Your task to perform on an android device: Open Google Maps and go to "Timeline" Image 0: 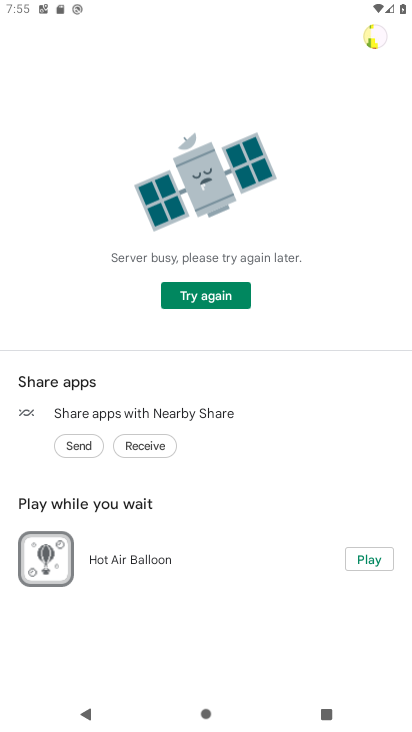
Step 0: press home button
Your task to perform on an android device: Open Google Maps and go to "Timeline" Image 1: 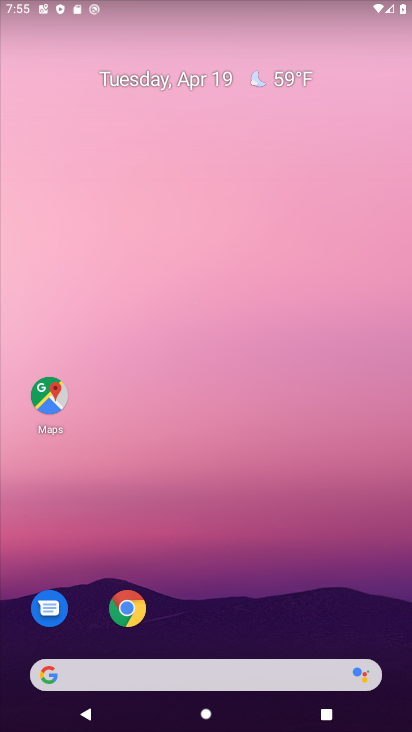
Step 1: drag from (287, 595) to (231, 165)
Your task to perform on an android device: Open Google Maps and go to "Timeline" Image 2: 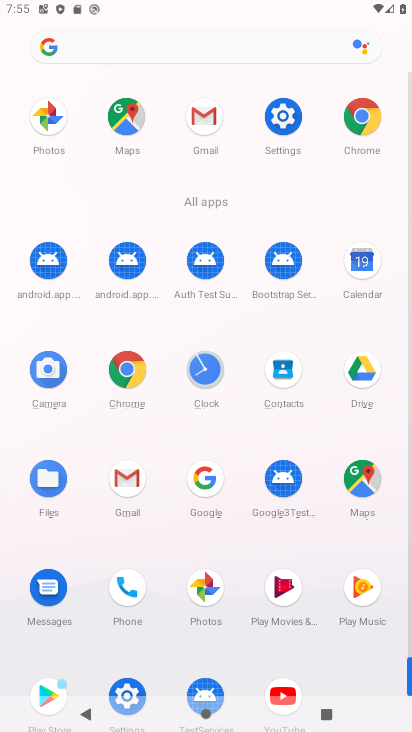
Step 2: click (123, 125)
Your task to perform on an android device: Open Google Maps and go to "Timeline" Image 3: 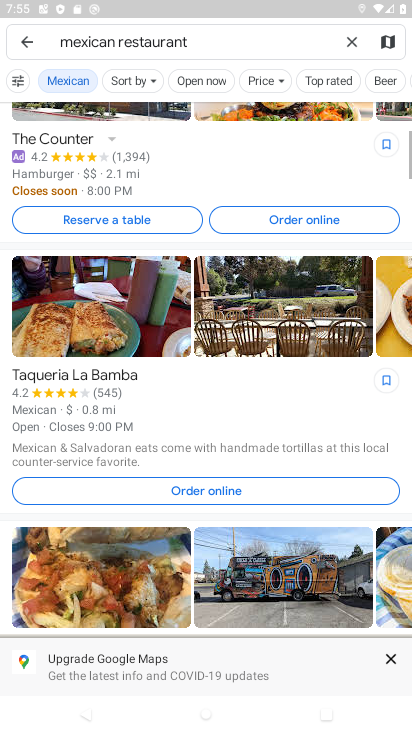
Step 3: click (29, 39)
Your task to perform on an android device: Open Google Maps and go to "Timeline" Image 4: 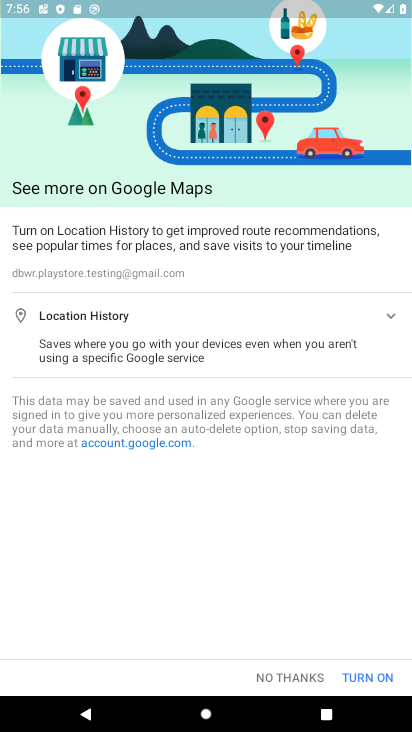
Step 4: click (288, 677)
Your task to perform on an android device: Open Google Maps and go to "Timeline" Image 5: 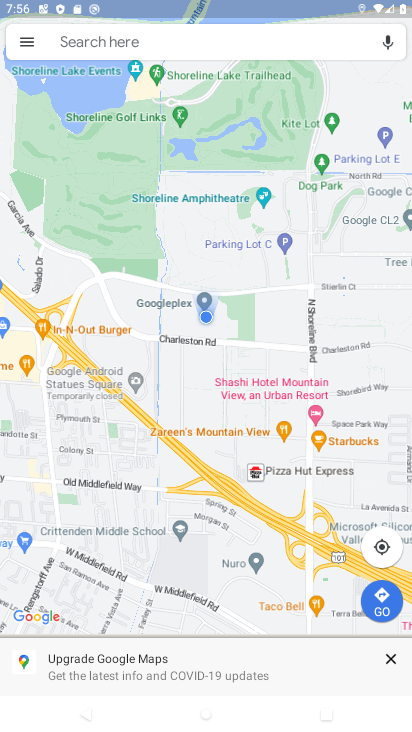
Step 5: click (18, 44)
Your task to perform on an android device: Open Google Maps and go to "Timeline" Image 6: 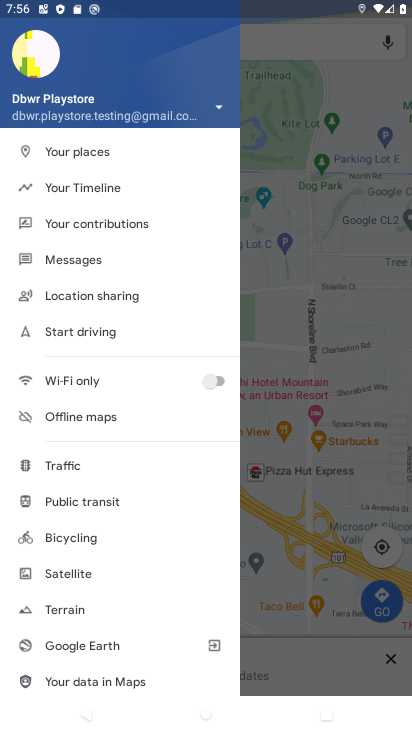
Step 6: click (101, 185)
Your task to perform on an android device: Open Google Maps and go to "Timeline" Image 7: 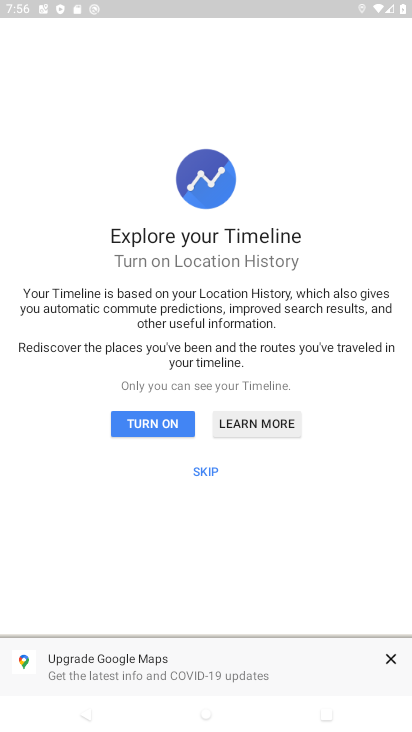
Step 7: click (203, 472)
Your task to perform on an android device: Open Google Maps and go to "Timeline" Image 8: 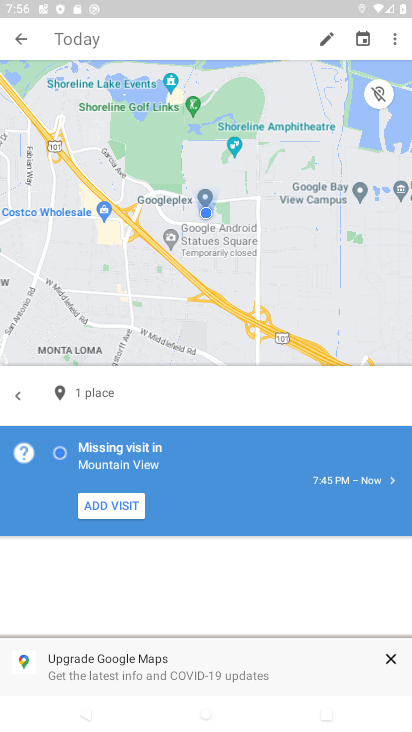
Step 8: task complete